Your task to perform on an android device: open app "Microsoft Excel" (install if not already installed) and go to login screen Image 0: 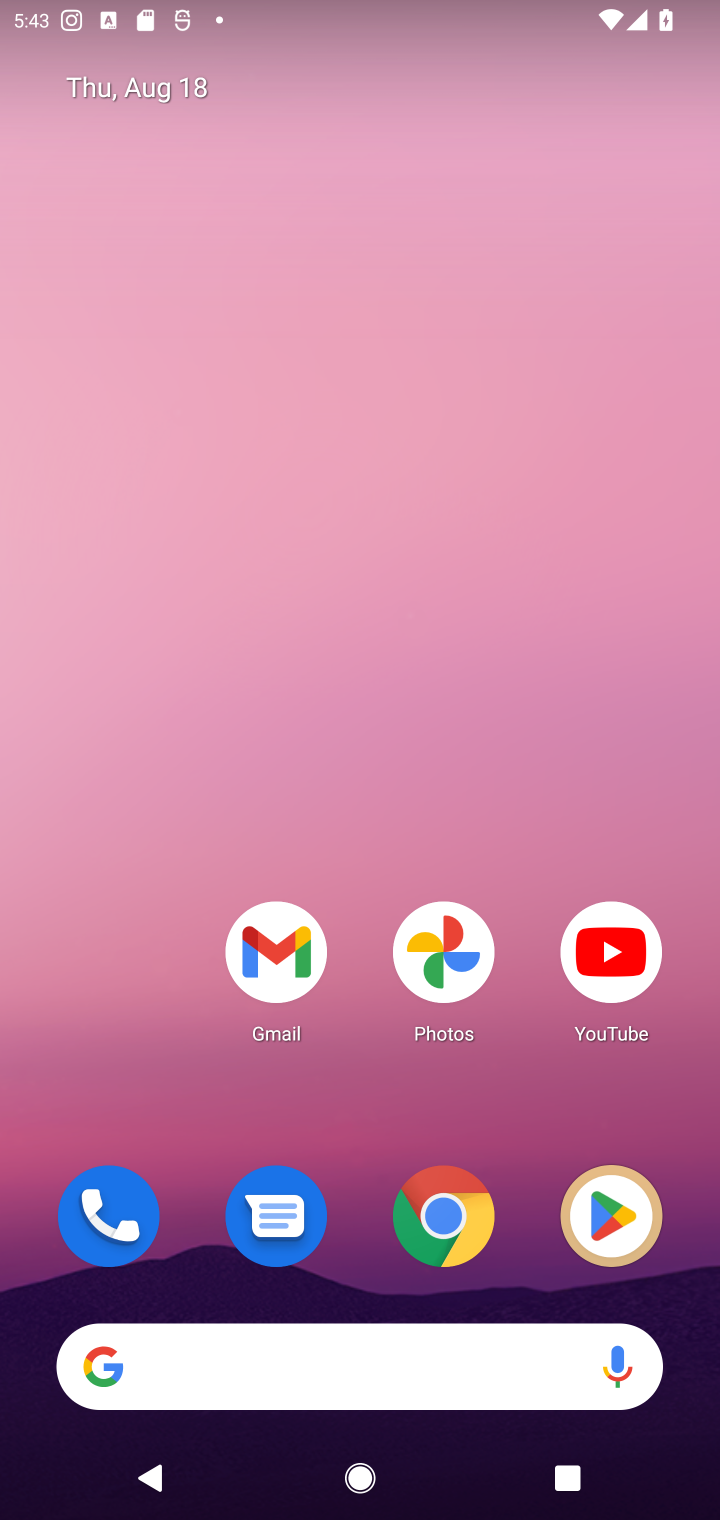
Step 0: click (575, 1195)
Your task to perform on an android device: open app "Microsoft Excel" (install if not already installed) and go to login screen Image 1: 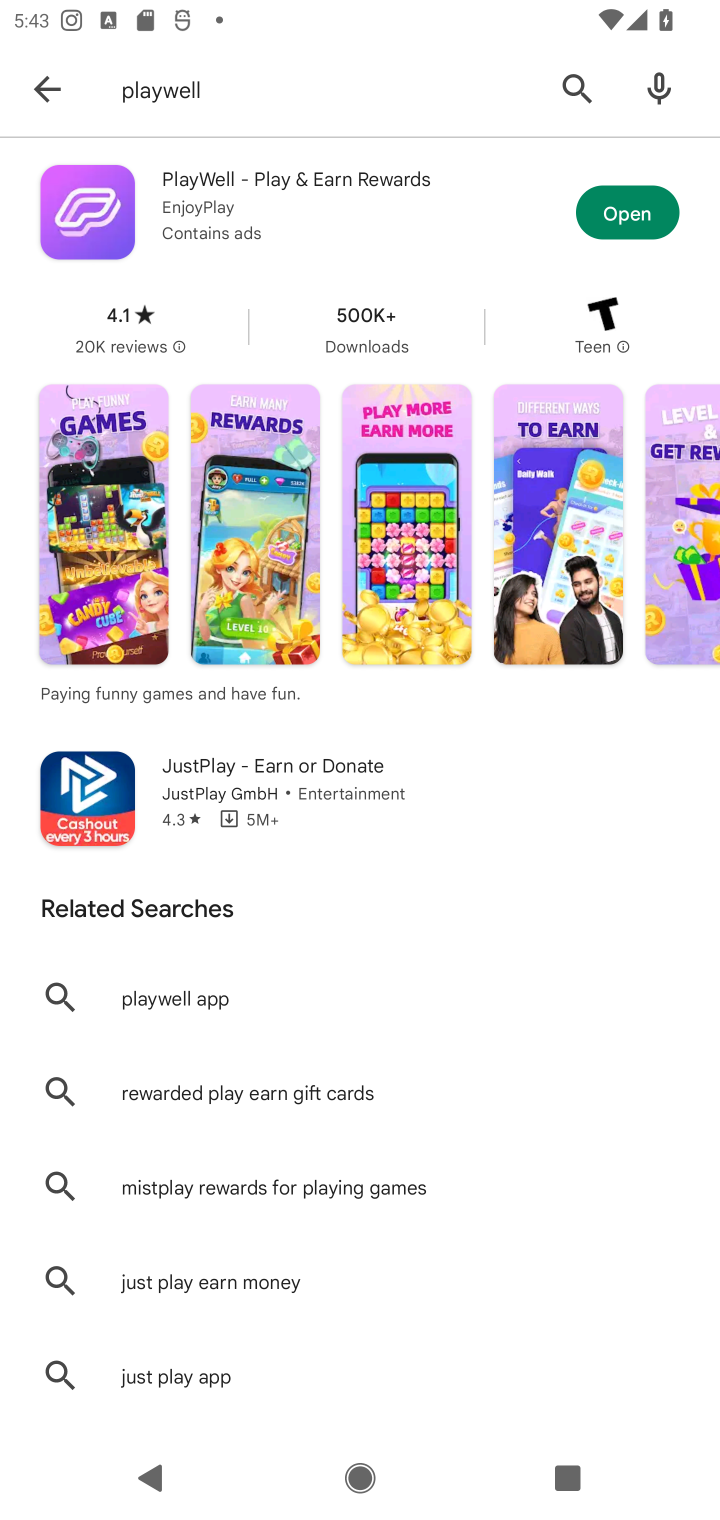
Step 1: click (561, 99)
Your task to perform on an android device: open app "Microsoft Excel" (install if not already installed) and go to login screen Image 2: 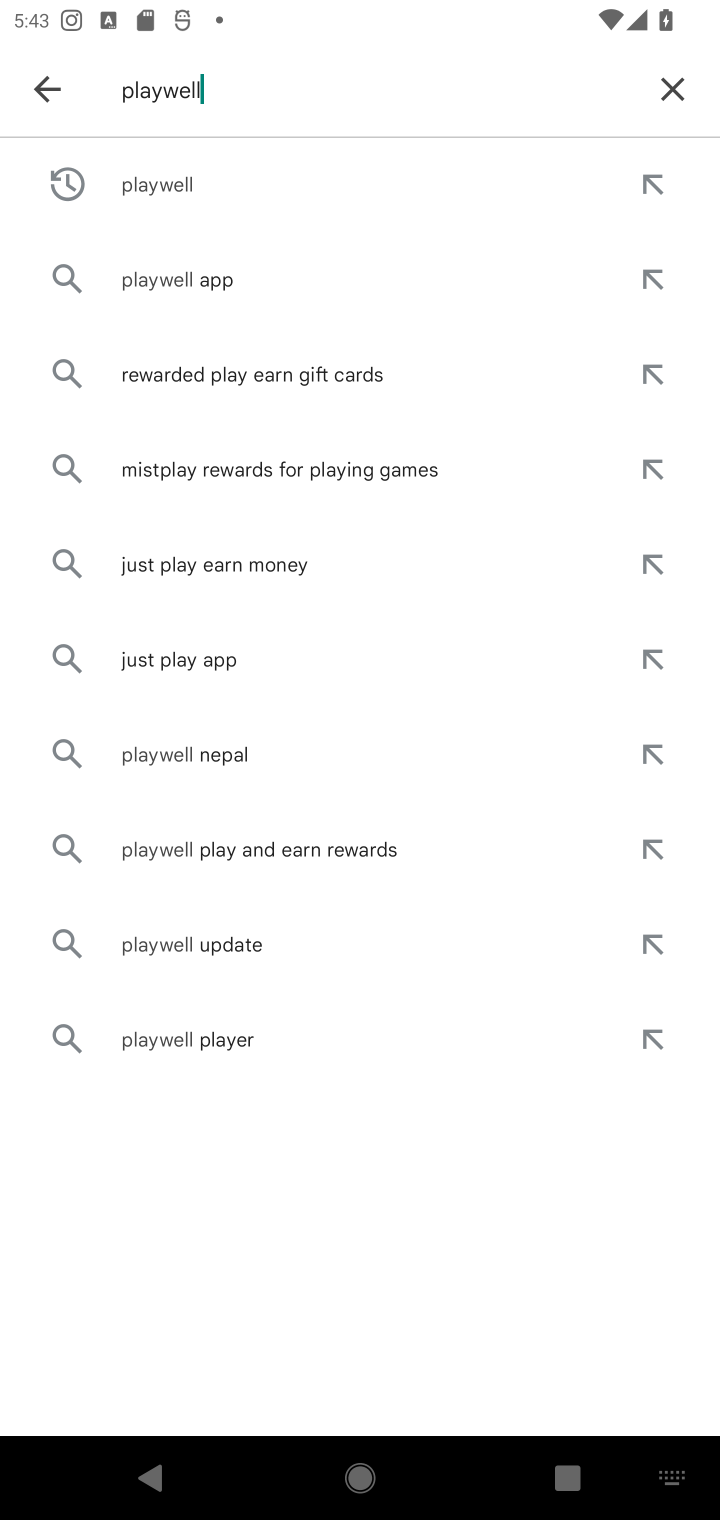
Step 2: click (658, 83)
Your task to perform on an android device: open app "Microsoft Excel" (install if not already installed) and go to login screen Image 3: 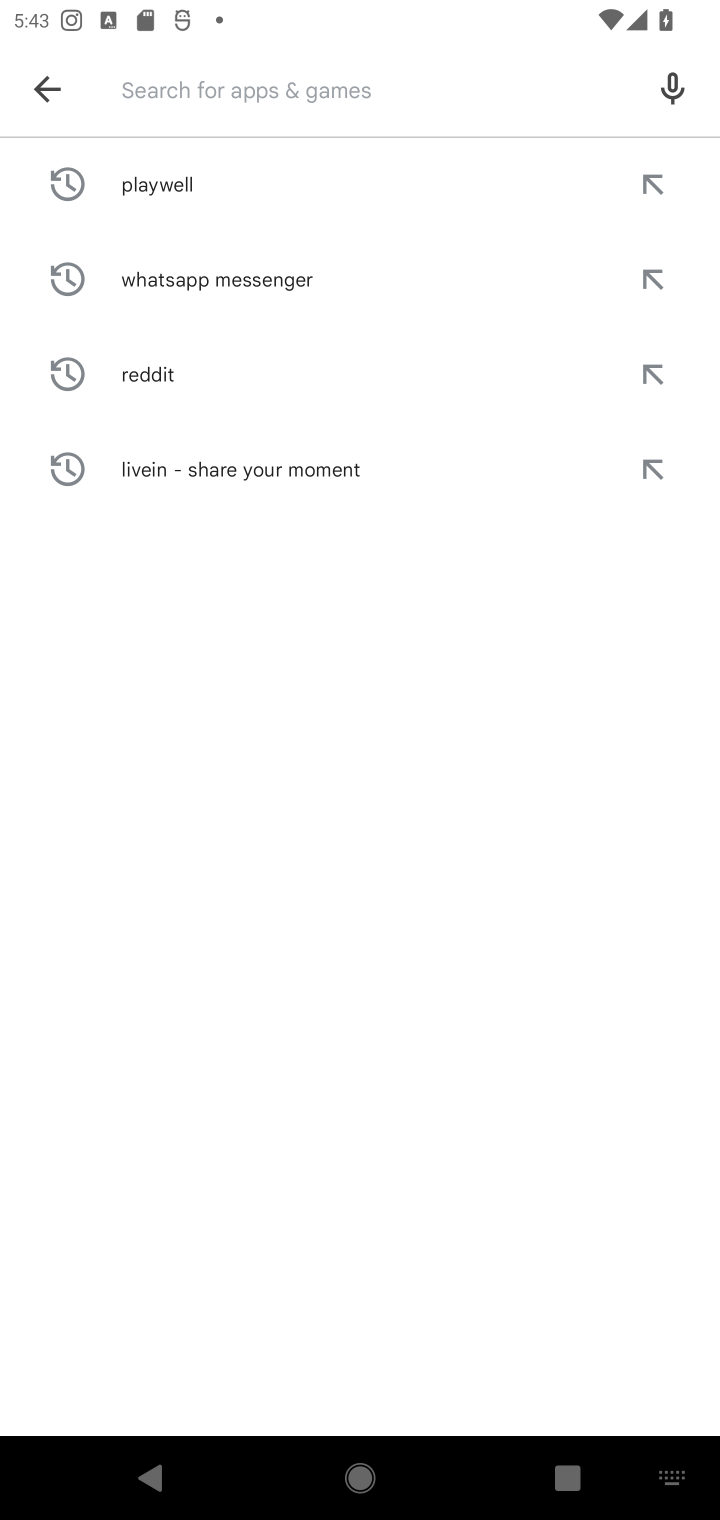
Step 3: click (357, 93)
Your task to perform on an android device: open app "Microsoft Excel" (install if not already installed) and go to login screen Image 4: 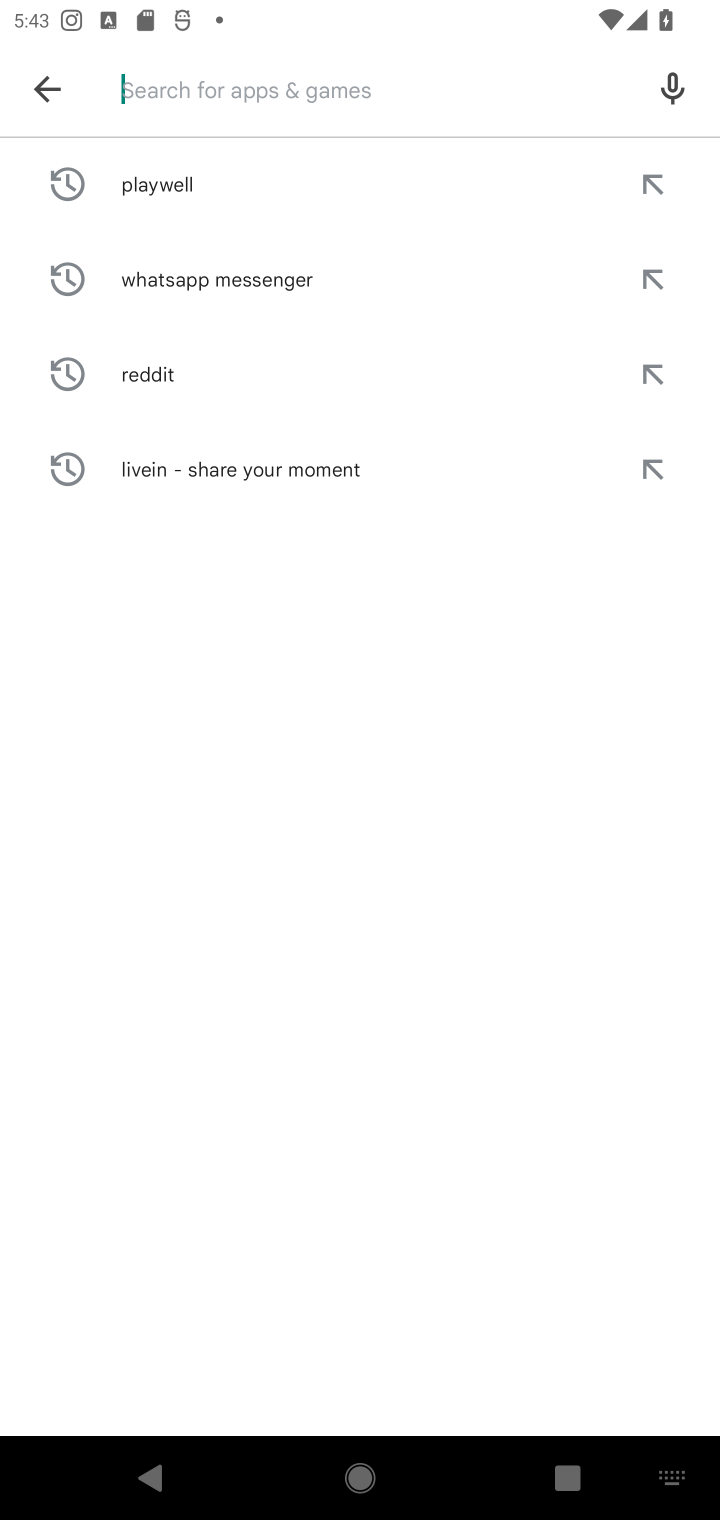
Step 4: type "Microsoft Excel"
Your task to perform on an android device: open app "Microsoft Excel" (install if not already installed) and go to login screen Image 5: 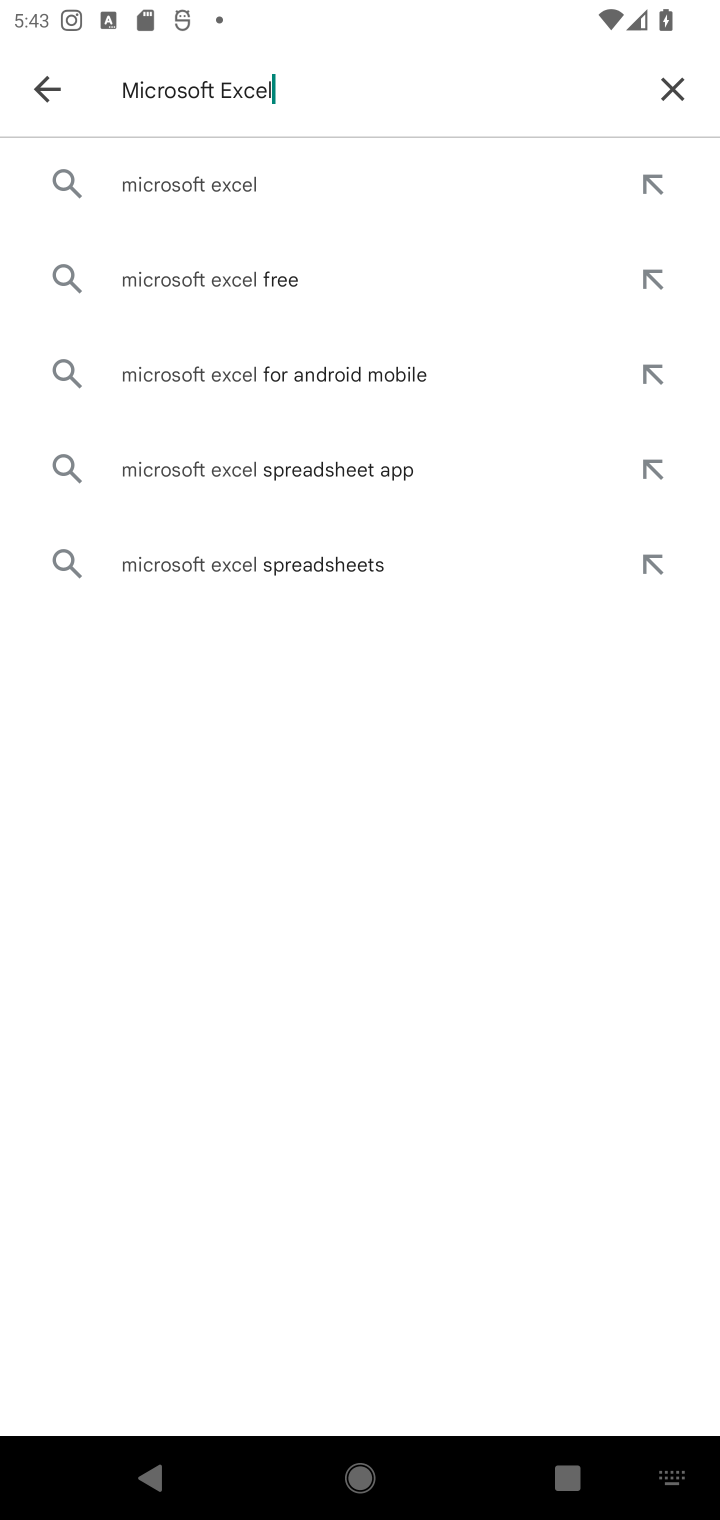
Step 5: click (294, 187)
Your task to perform on an android device: open app "Microsoft Excel" (install if not already installed) and go to login screen Image 6: 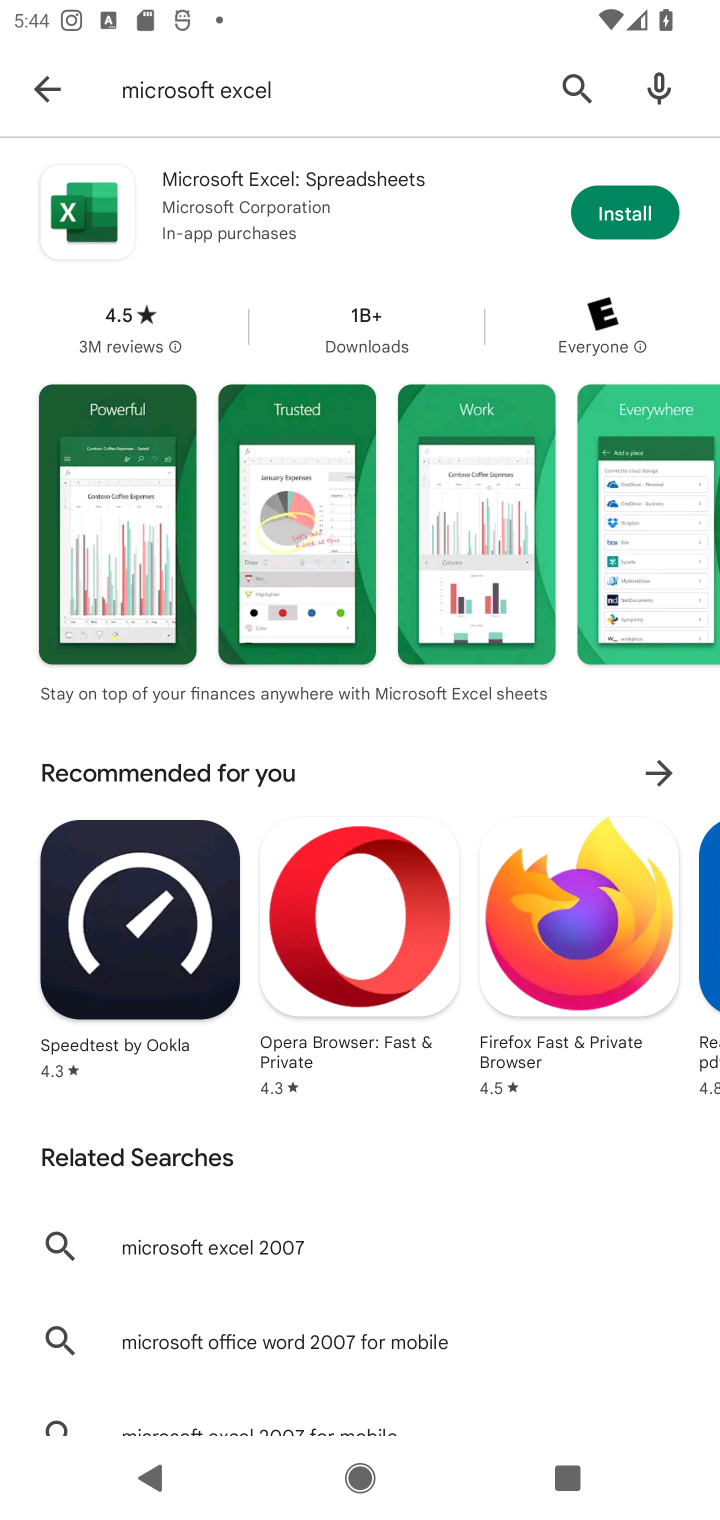
Step 6: click (617, 212)
Your task to perform on an android device: open app "Microsoft Excel" (install if not already installed) and go to login screen Image 7: 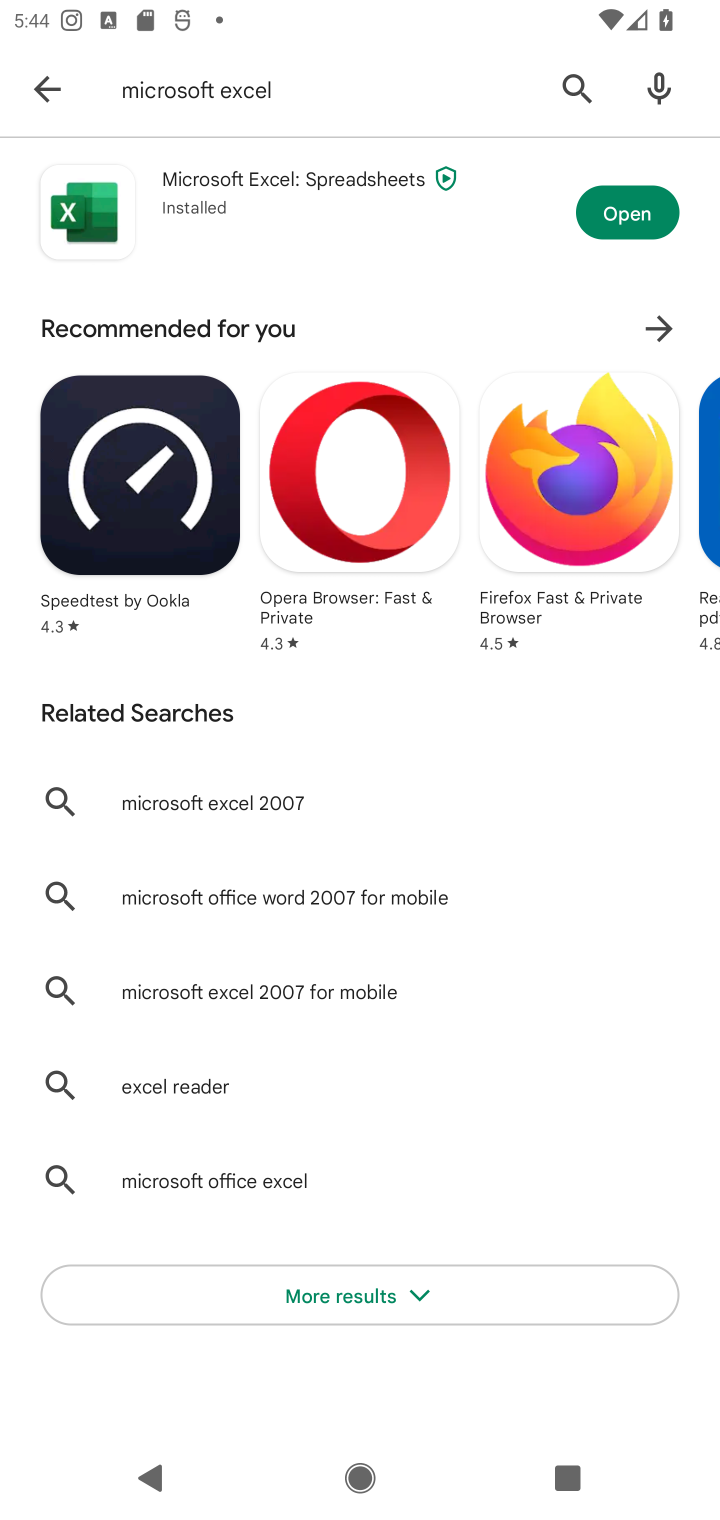
Step 7: click (629, 200)
Your task to perform on an android device: open app "Microsoft Excel" (install if not already installed) and go to login screen Image 8: 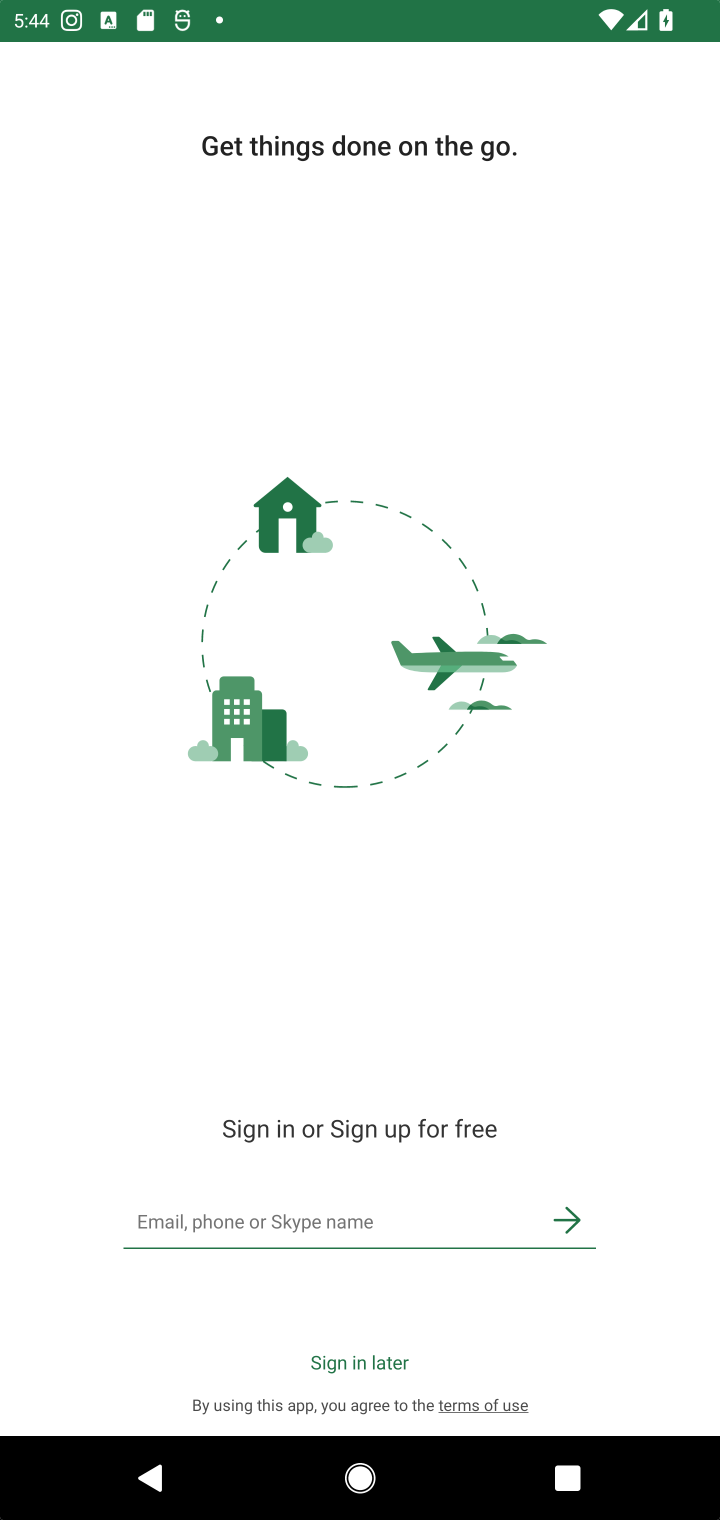
Step 8: task complete